Your task to perform on an android device: see creations saved in the google photos Image 0: 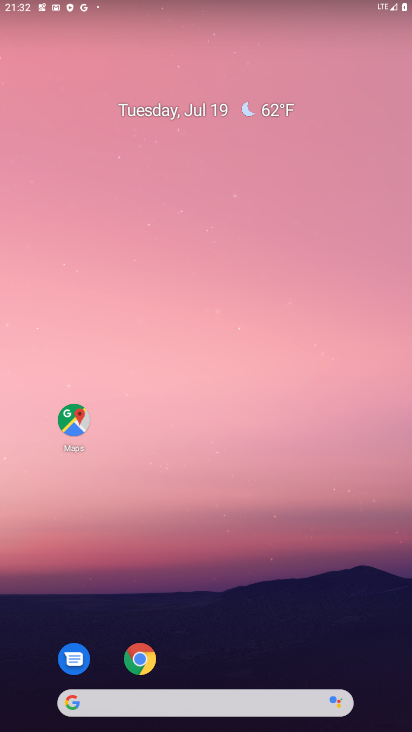
Step 0: drag from (311, 663) to (240, 101)
Your task to perform on an android device: see creations saved in the google photos Image 1: 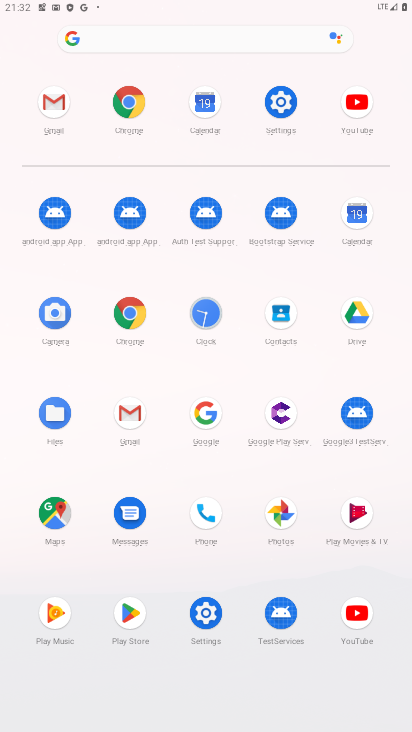
Step 1: click (142, 90)
Your task to perform on an android device: see creations saved in the google photos Image 2: 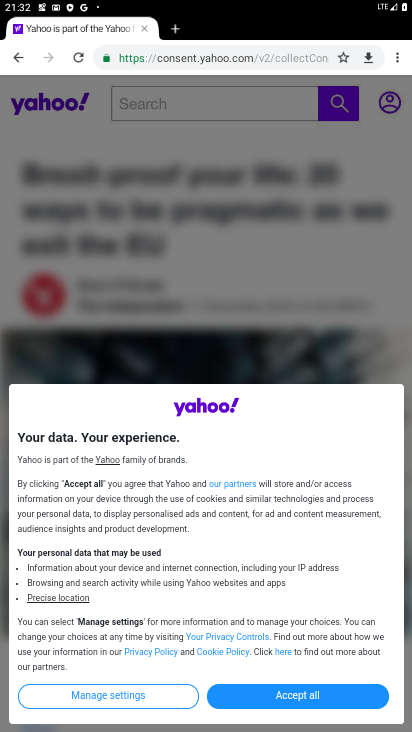
Step 2: press home button
Your task to perform on an android device: see creations saved in the google photos Image 3: 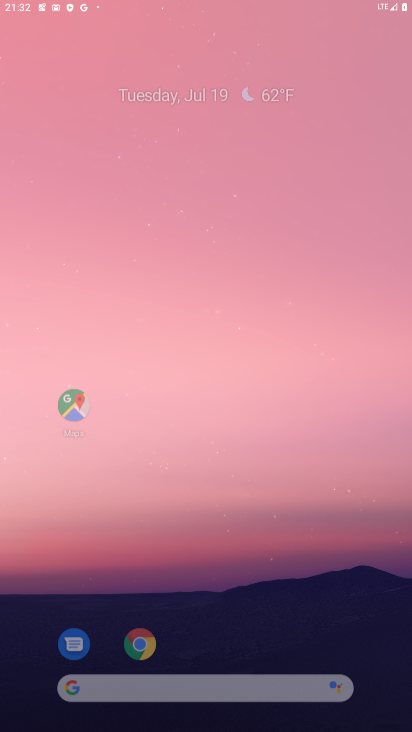
Step 3: drag from (191, 665) to (205, 89)
Your task to perform on an android device: see creations saved in the google photos Image 4: 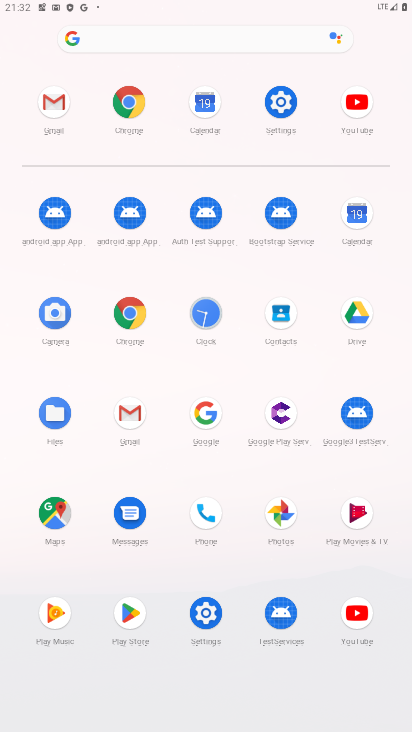
Step 4: click (273, 510)
Your task to perform on an android device: see creations saved in the google photos Image 5: 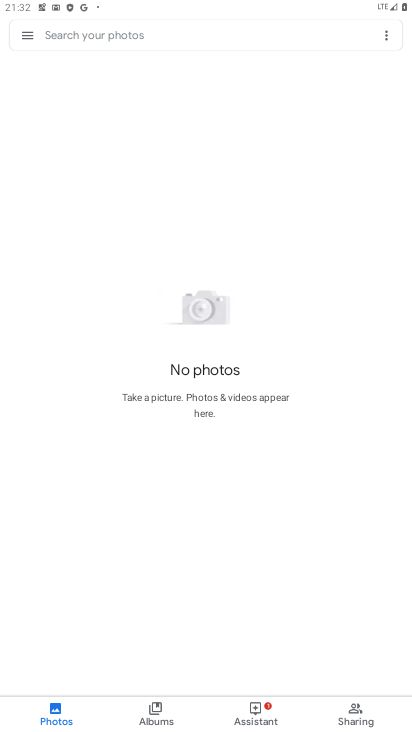
Step 5: click (32, 30)
Your task to perform on an android device: see creations saved in the google photos Image 6: 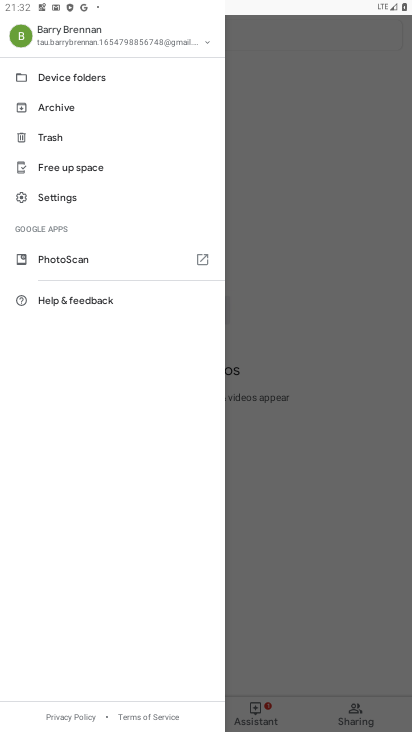
Step 6: click (51, 196)
Your task to perform on an android device: see creations saved in the google photos Image 7: 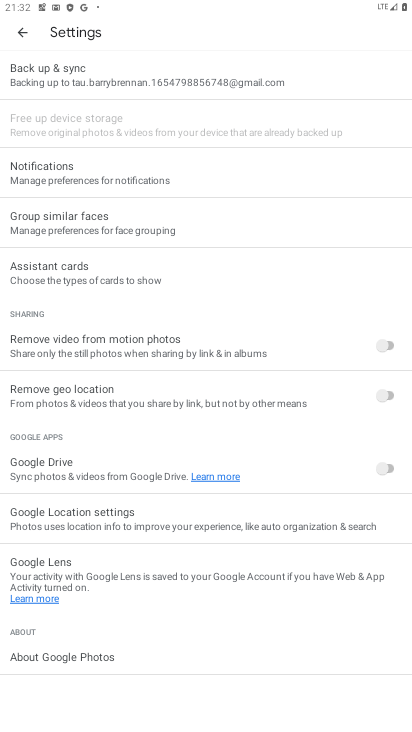
Step 7: click (28, 30)
Your task to perform on an android device: see creations saved in the google photos Image 8: 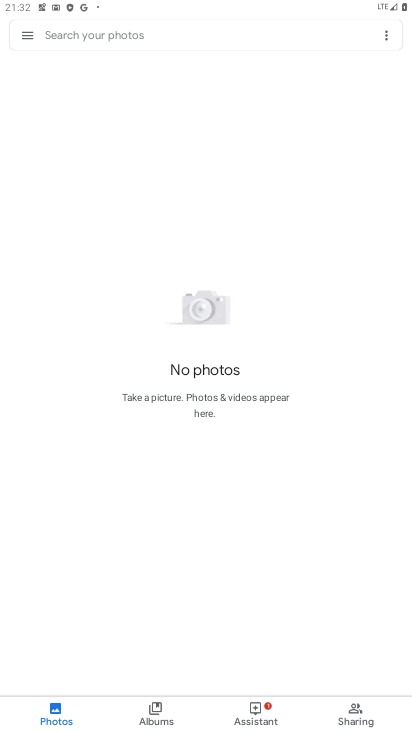
Step 8: click (145, 32)
Your task to perform on an android device: see creations saved in the google photos Image 9: 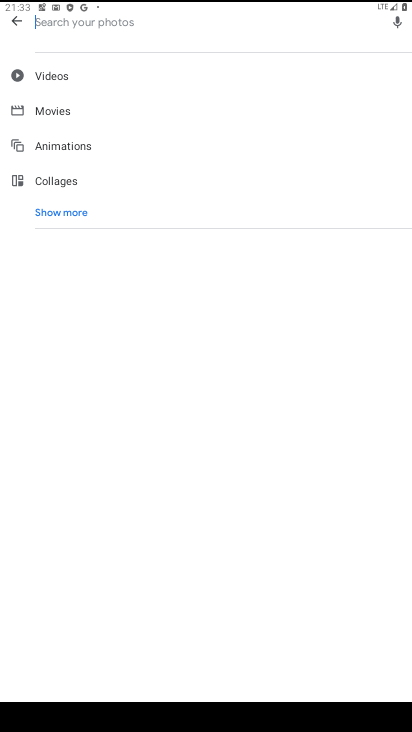
Step 9: click (74, 215)
Your task to perform on an android device: see creations saved in the google photos Image 10: 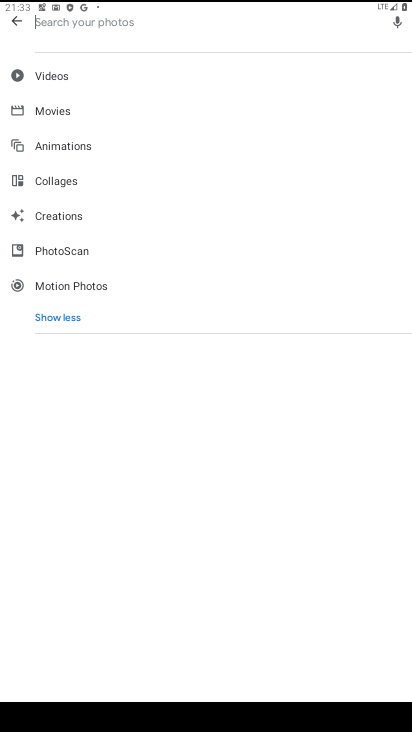
Step 10: click (74, 215)
Your task to perform on an android device: see creations saved in the google photos Image 11: 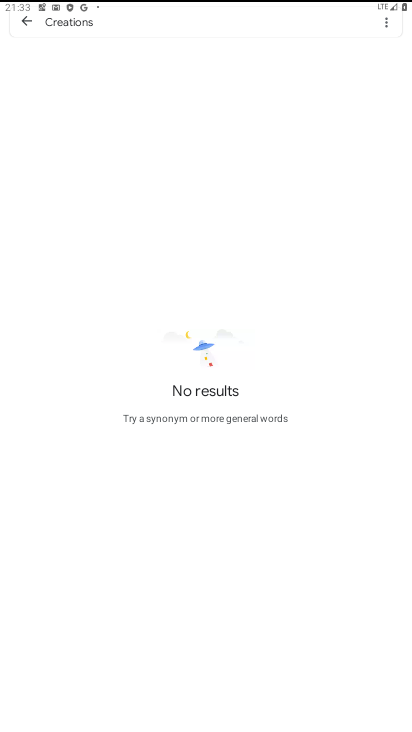
Step 11: task complete